Your task to perform on an android device: turn off javascript in the chrome app Image 0: 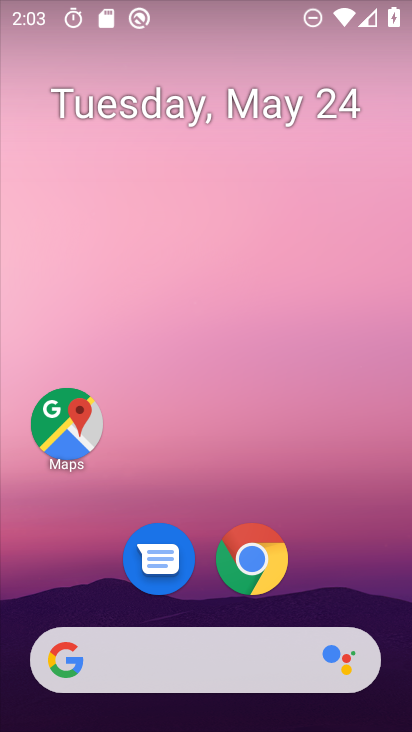
Step 0: click (251, 556)
Your task to perform on an android device: turn off javascript in the chrome app Image 1: 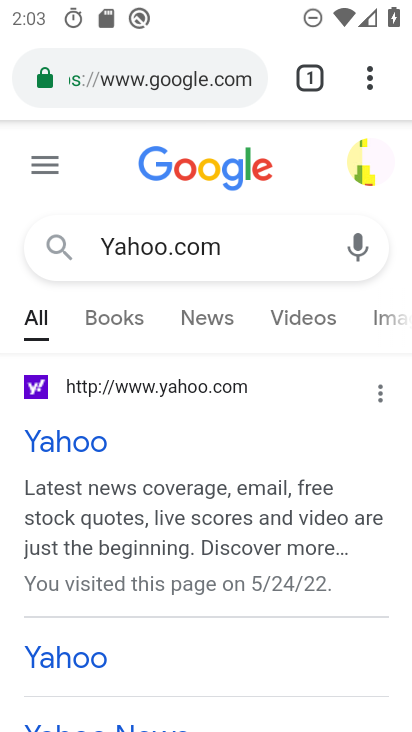
Step 1: click (373, 72)
Your task to perform on an android device: turn off javascript in the chrome app Image 2: 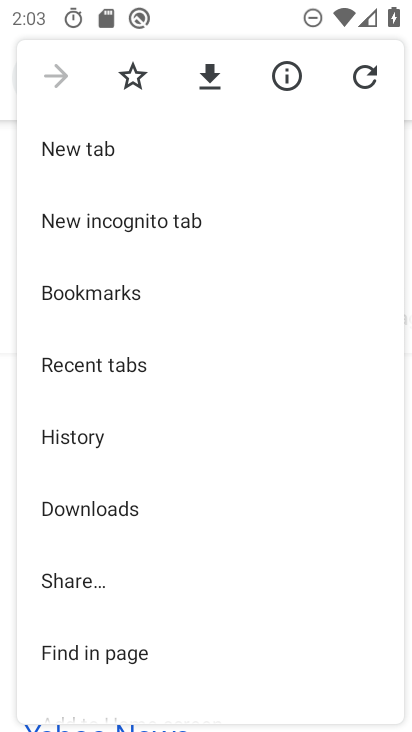
Step 2: drag from (262, 677) to (298, 245)
Your task to perform on an android device: turn off javascript in the chrome app Image 3: 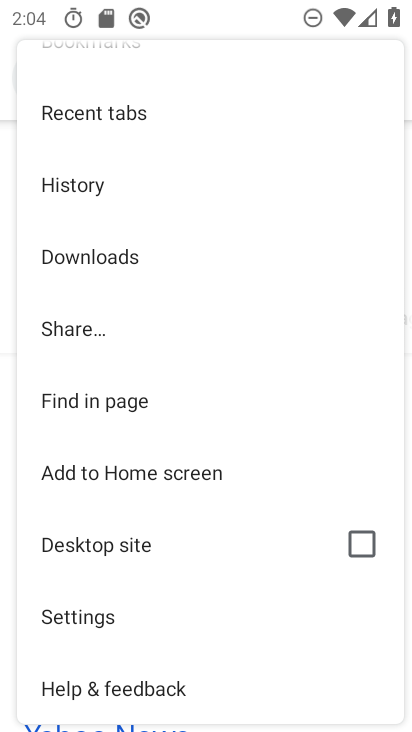
Step 3: click (81, 611)
Your task to perform on an android device: turn off javascript in the chrome app Image 4: 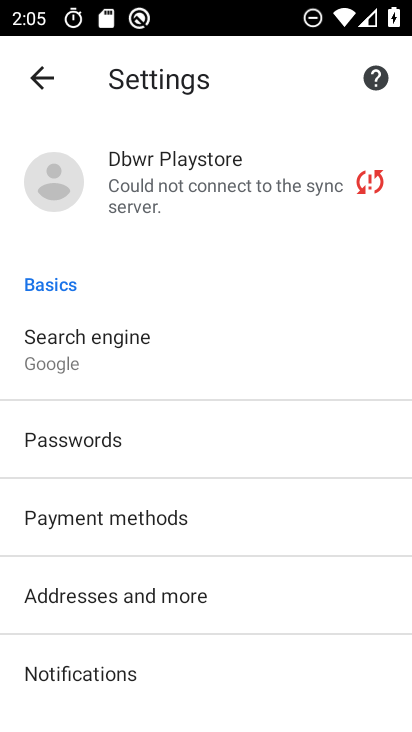
Step 4: drag from (274, 703) to (243, 218)
Your task to perform on an android device: turn off javascript in the chrome app Image 5: 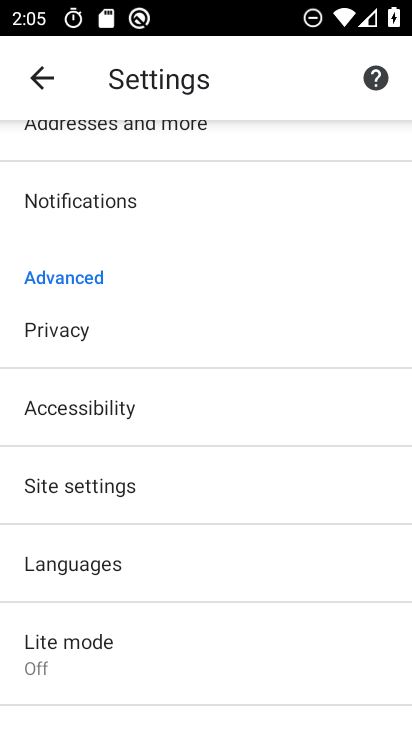
Step 5: click (84, 486)
Your task to perform on an android device: turn off javascript in the chrome app Image 6: 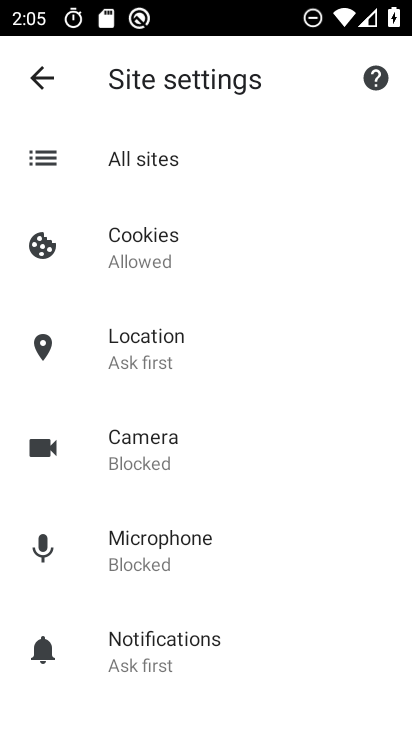
Step 6: drag from (274, 660) to (218, 255)
Your task to perform on an android device: turn off javascript in the chrome app Image 7: 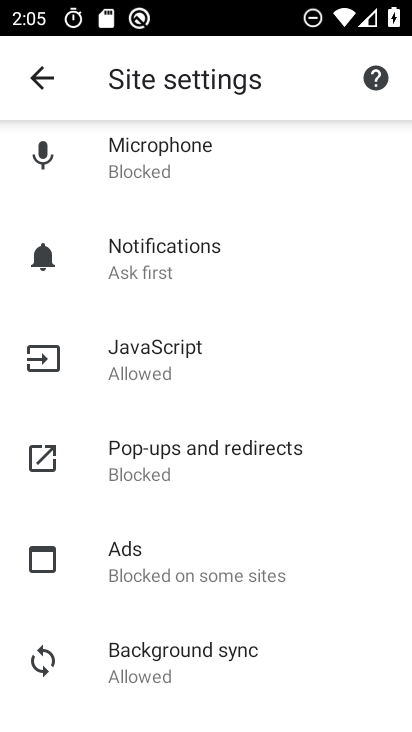
Step 7: click (162, 363)
Your task to perform on an android device: turn off javascript in the chrome app Image 8: 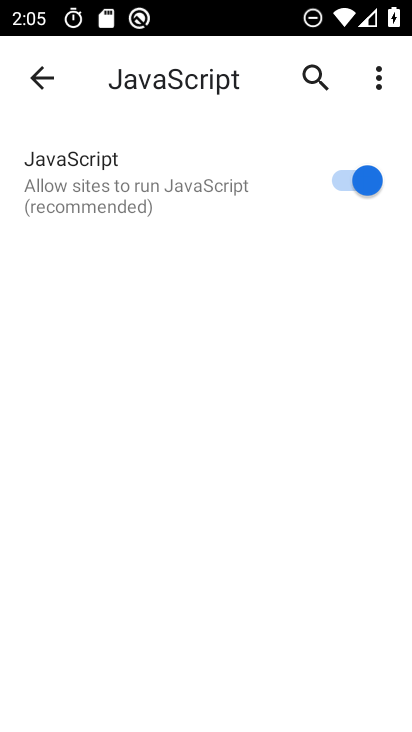
Step 8: click (331, 165)
Your task to perform on an android device: turn off javascript in the chrome app Image 9: 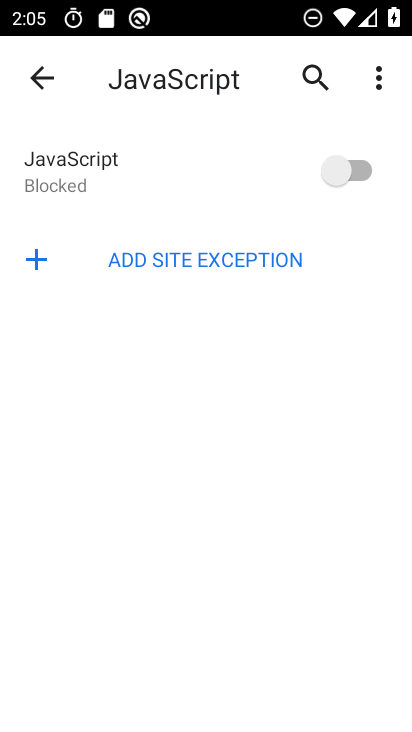
Step 9: task complete